Your task to perform on an android device: Open accessibility settings Image 0: 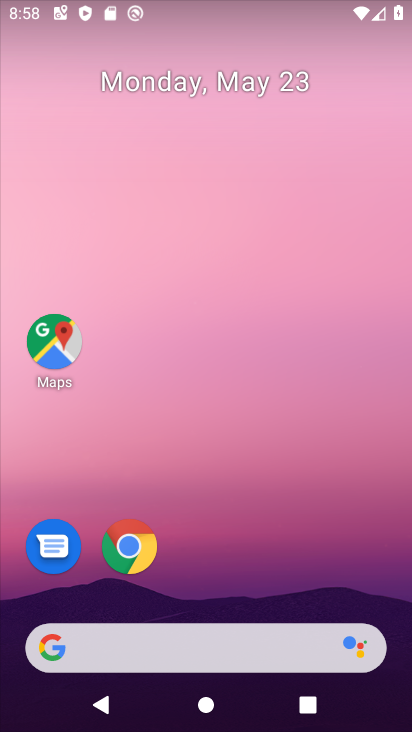
Step 0: drag from (405, 637) to (353, 178)
Your task to perform on an android device: Open accessibility settings Image 1: 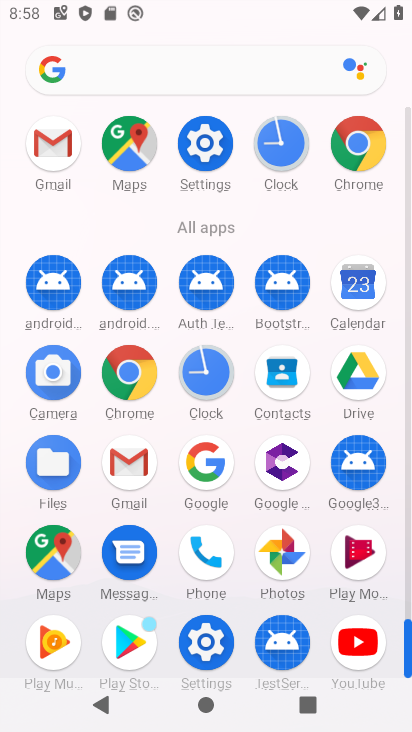
Step 1: click (204, 640)
Your task to perform on an android device: Open accessibility settings Image 2: 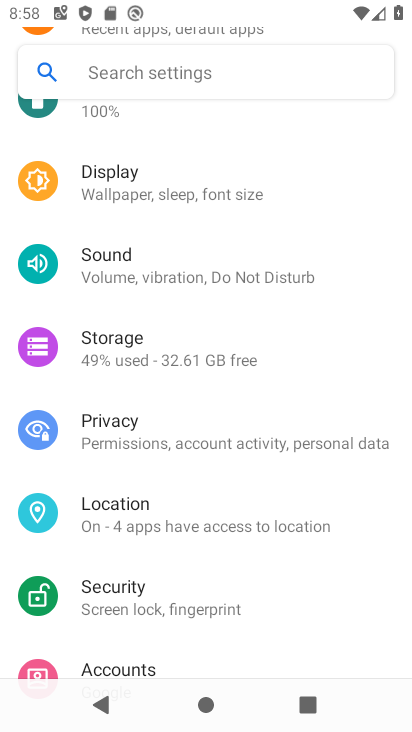
Step 2: drag from (301, 644) to (338, 56)
Your task to perform on an android device: Open accessibility settings Image 3: 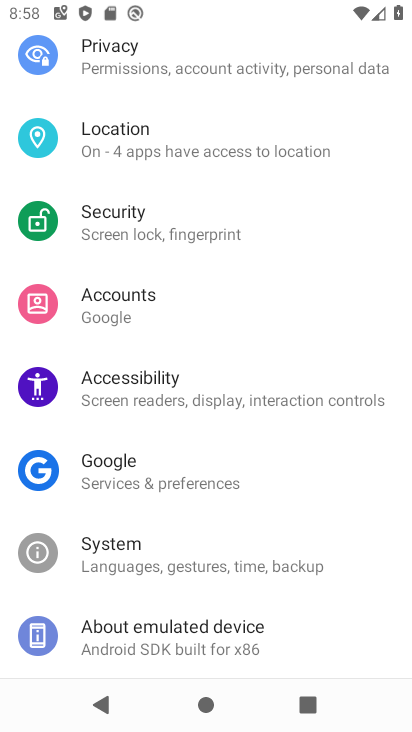
Step 3: click (140, 380)
Your task to perform on an android device: Open accessibility settings Image 4: 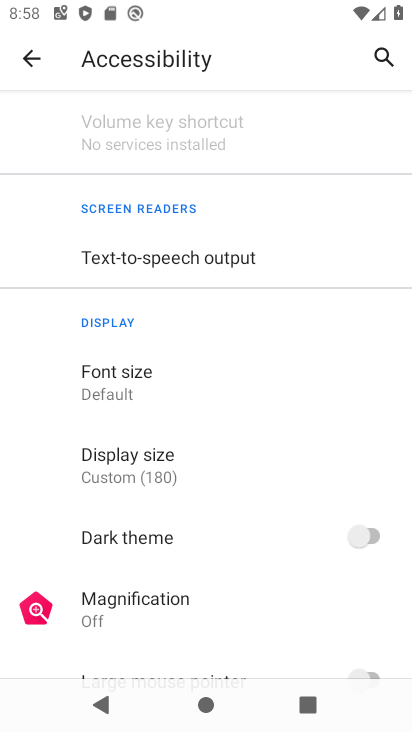
Step 4: task complete